Your task to perform on an android device: What's on my calendar today? Image 0: 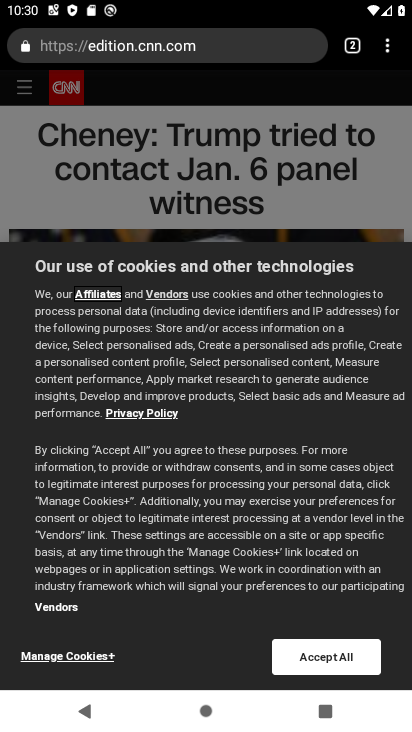
Step 0: drag from (33, 709) to (234, 123)
Your task to perform on an android device: What's on my calendar today? Image 1: 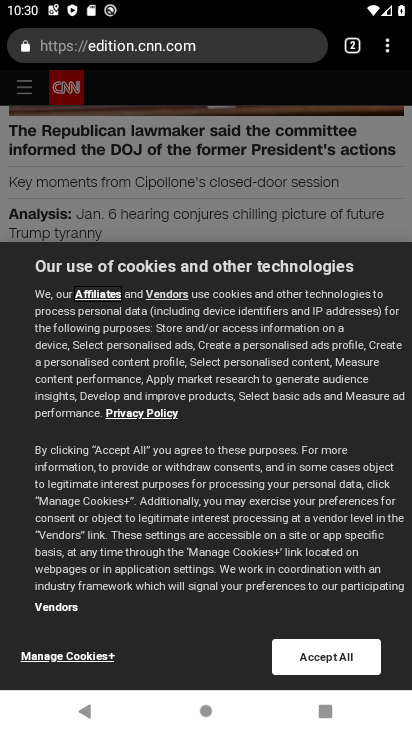
Step 1: press home button
Your task to perform on an android device: What's on my calendar today? Image 2: 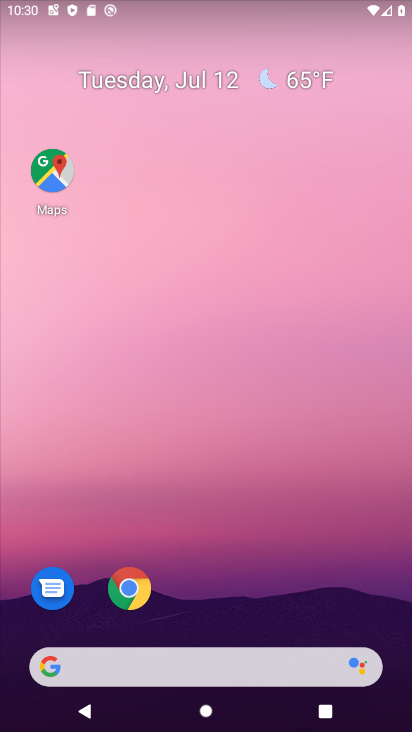
Step 2: drag from (140, 481) to (236, 138)
Your task to perform on an android device: What's on my calendar today? Image 3: 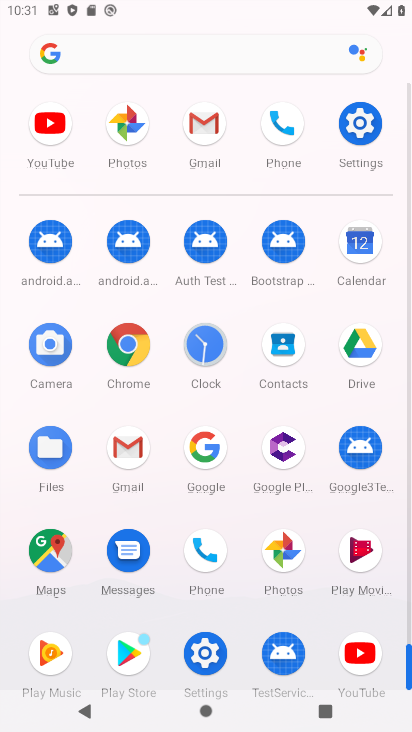
Step 3: click (375, 255)
Your task to perform on an android device: What's on my calendar today? Image 4: 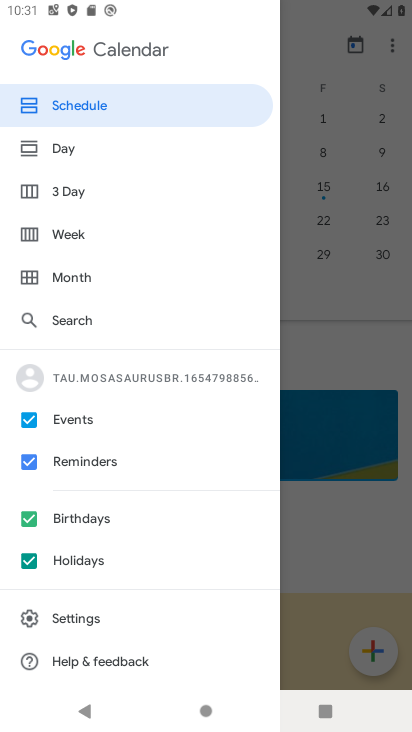
Step 4: task complete